Your task to perform on an android device: Open eBay Image 0: 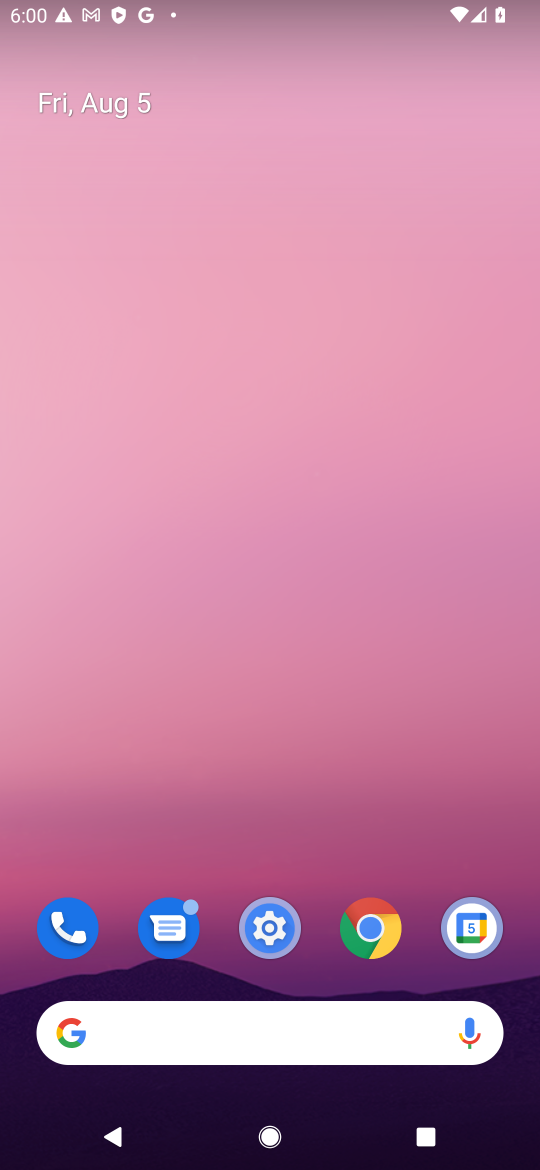
Step 0: click (369, 923)
Your task to perform on an android device: Open eBay Image 1: 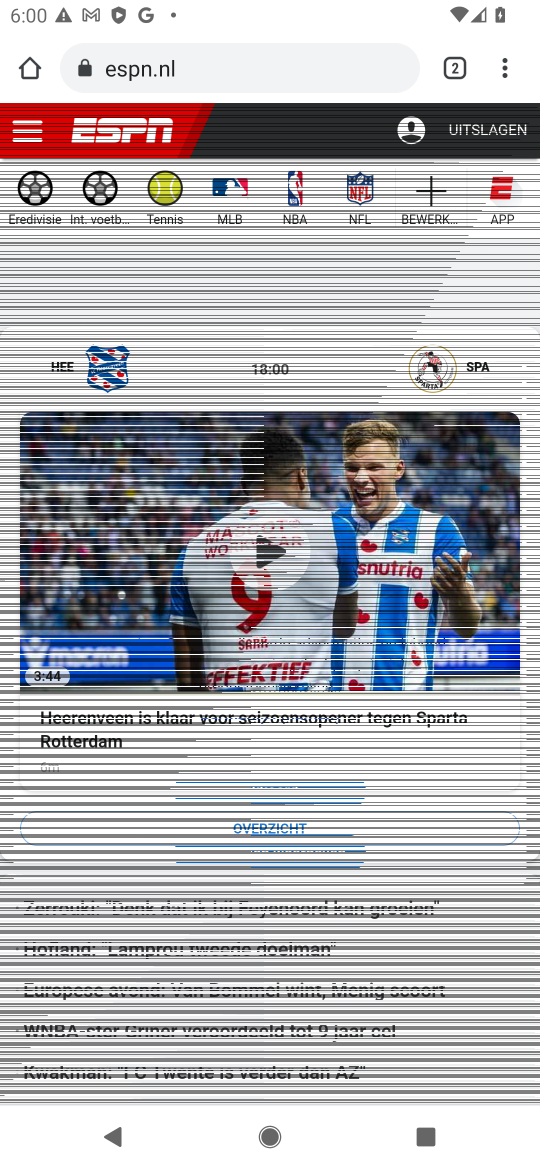
Step 1: click (449, 56)
Your task to perform on an android device: Open eBay Image 2: 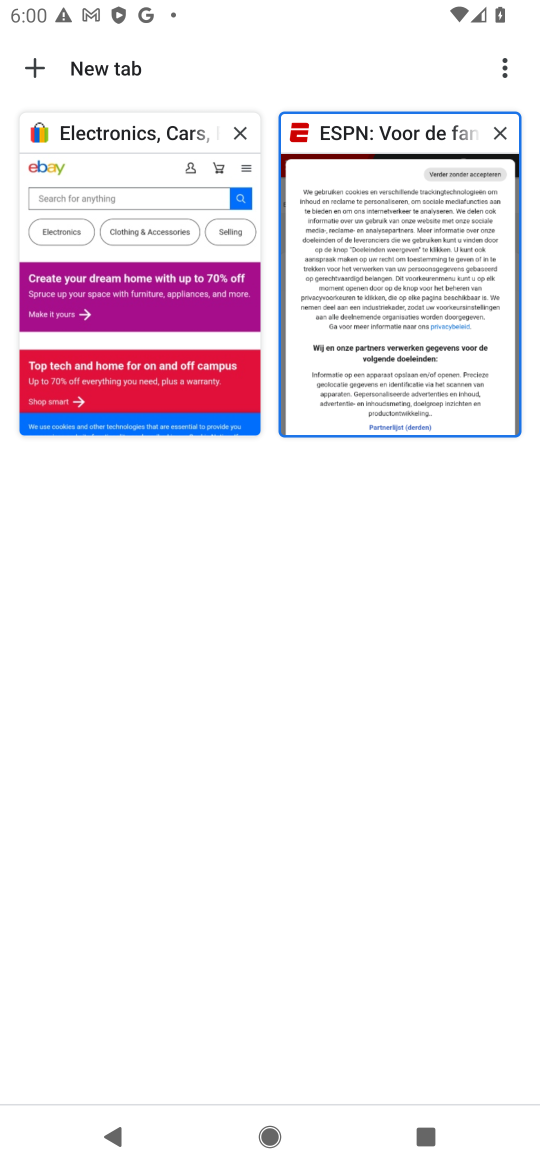
Step 2: click (84, 184)
Your task to perform on an android device: Open eBay Image 3: 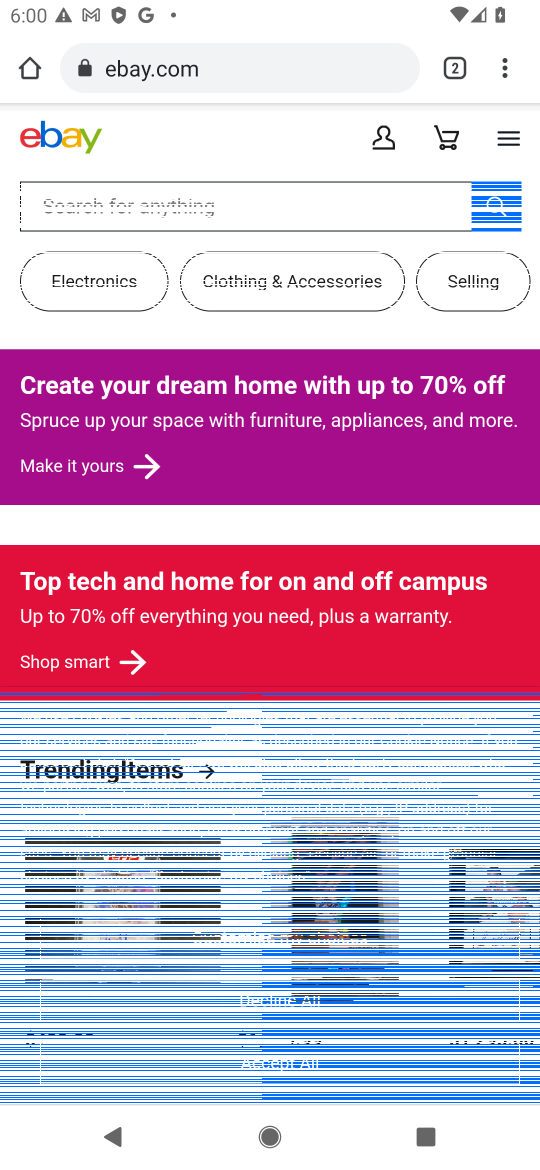
Step 3: task complete